Your task to perform on an android device: turn off improve location accuracy Image 0: 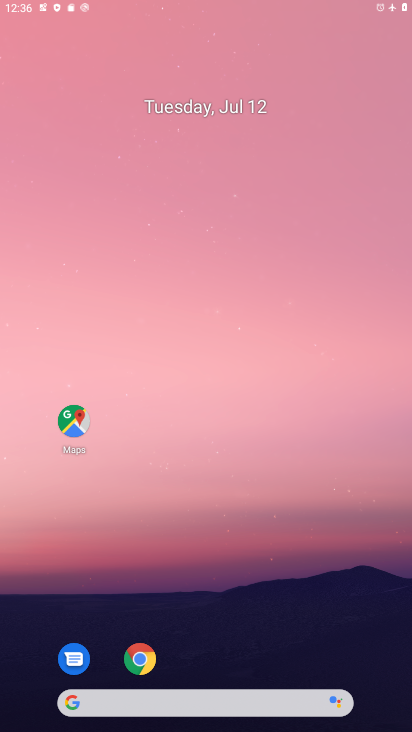
Step 0: click (402, 127)
Your task to perform on an android device: turn off improve location accuracy Image 1: 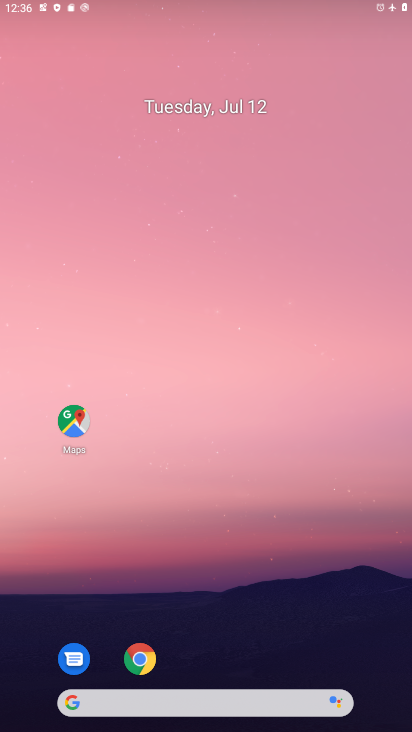
Step 1: drag from (170, 554) to (223, 162)
Your task to perform on an android device: turn off improve location accuracy Image 2: 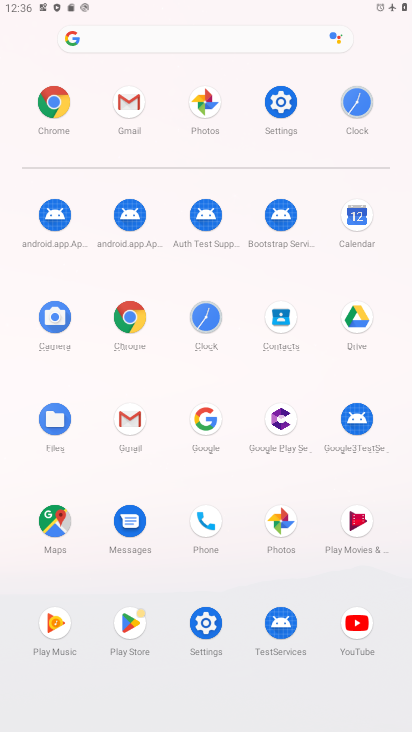
Step 2: click (209, 604)
Your task to perform on an android device: turn off improve location accuracy Image 3: 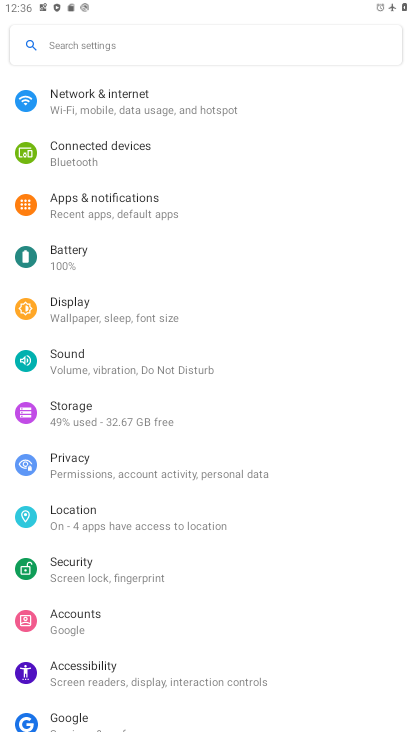
Step 3: click (89, 509)
Your task to perform on an android device: turn off improve location accuracy Image 4: 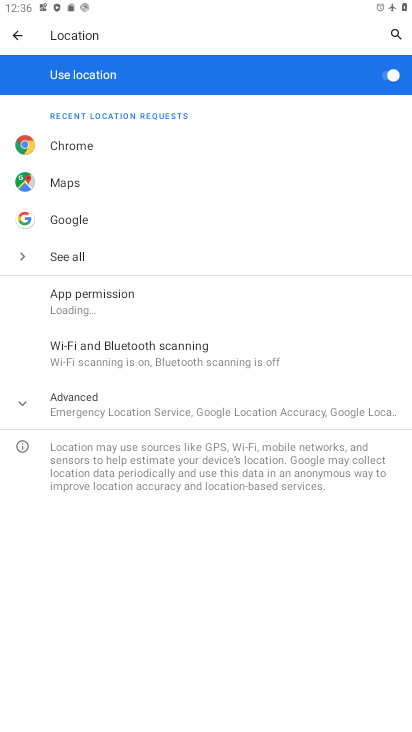
Step 4: click (221, 405)
Your task to perform on an android device: turn off improve location accuracy Image 5: 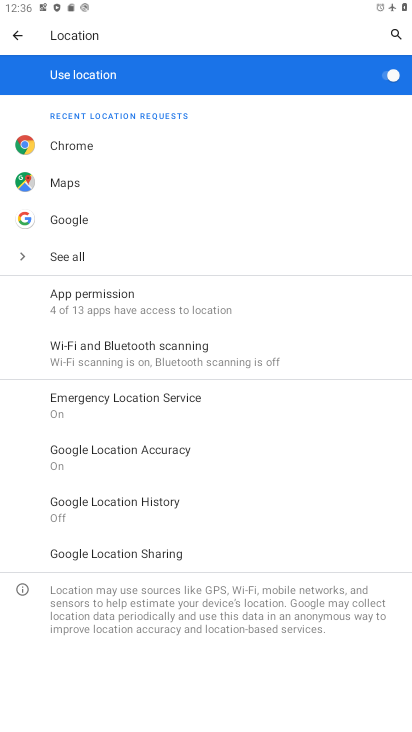
Step 5: click (204, 454)
Your task to perform on an android device: turn off improve location accuracy Image 6: 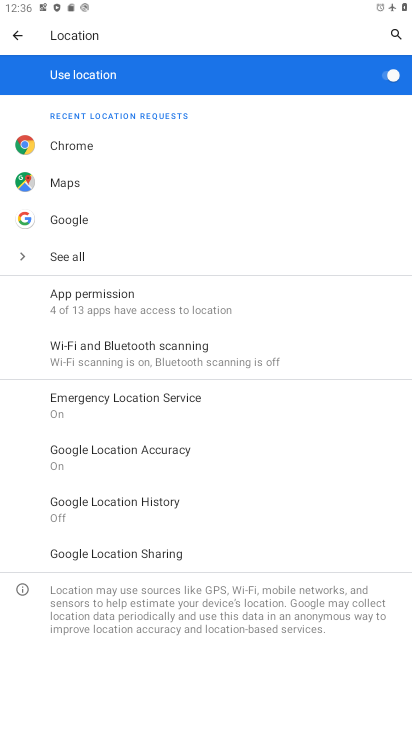
Step 6: click (204, 454)
Your task to perform on an android device: turn off improve location accuracy Image 7: 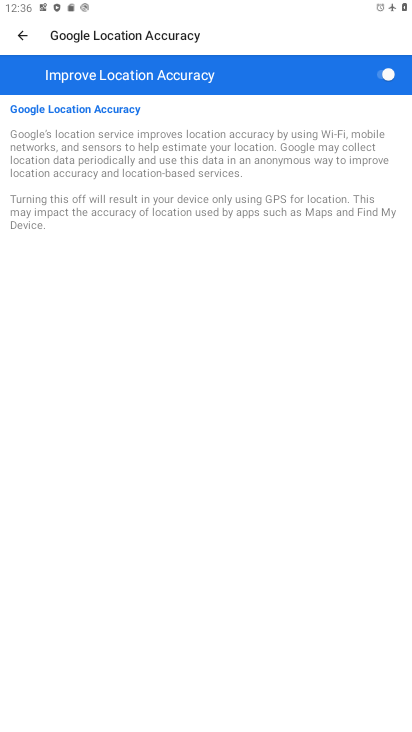
Step 7: click (376, 71)
Your task to perform on an android device: turn off improve location accuracy Image 8: 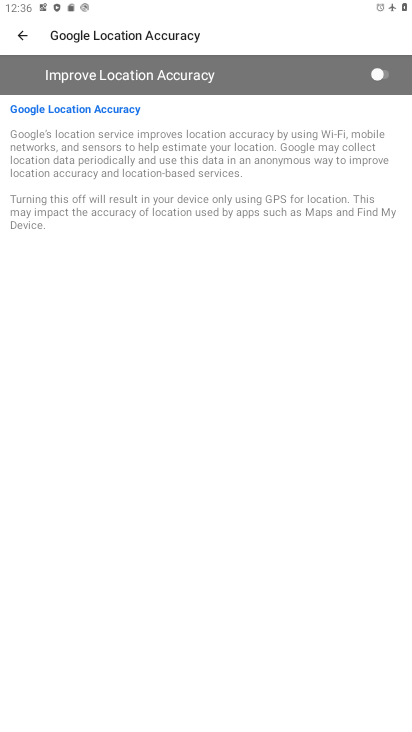
Step 8: task complete